Your task to perform on an android device: Open calendar and show me the second week of next month Image 0: 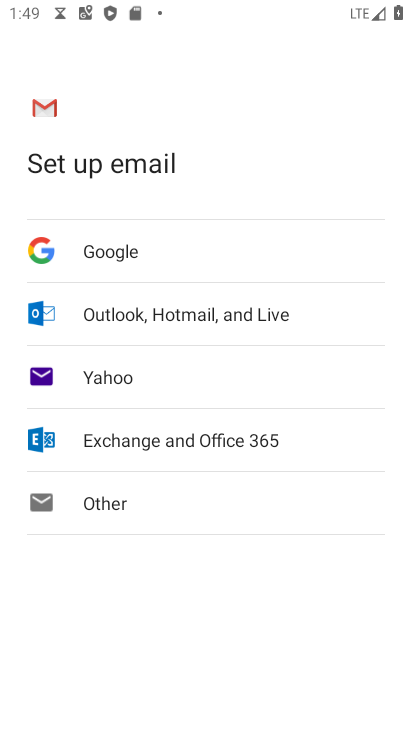
Step 0: press home button
Your task to perform on an android device: Open calendar and show me the second week of next month Image 1: 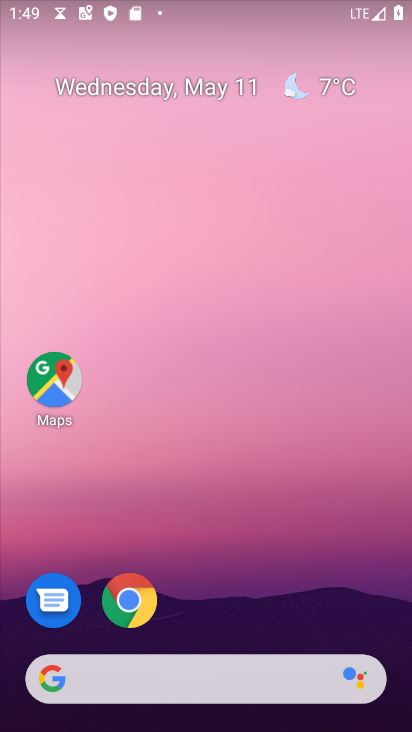
Step 1: drag from (212, 584) to (166, 114)
Your task to perform on an android device: Open calendar and show me the second week of next month Image 2: 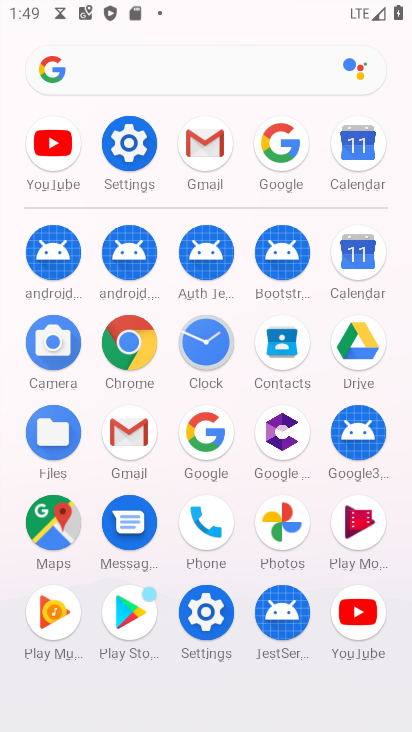
Step 2: click (346, 234)
Your task to perform on an android device: Open calendar and show me the second week of next month Image 3: 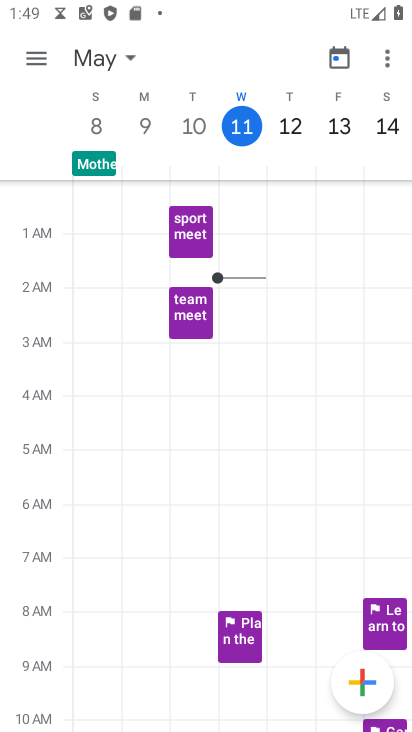
Step 3: click (129, 58)
Your task to perform on an android device: Open calendar and show me the second week of next month Image 4: 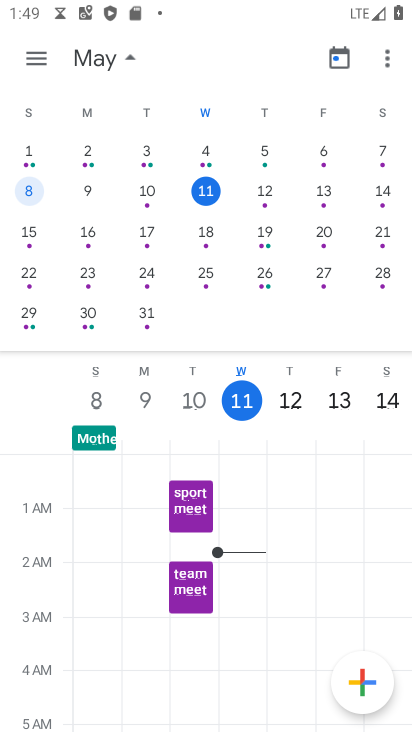
Step 4: drag from (357, 246) to (5, 283)
Your task to perform on an android device: Open calendar and show me the second week of next month Image 5: 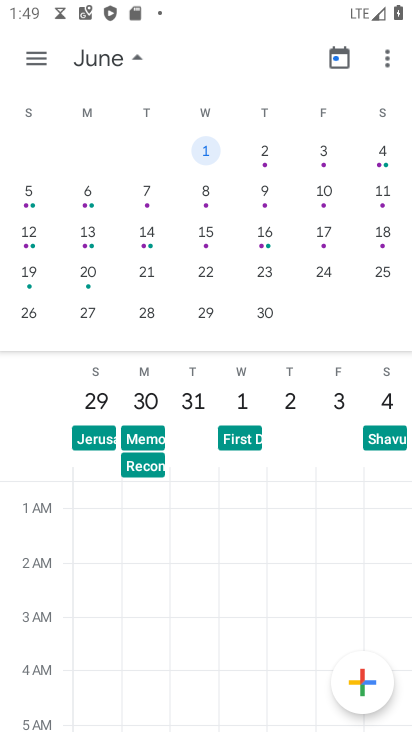
Step 5: click (44, 198)
Your task to perform on an android device: Open calendar and show me the second week of next month Image 6: 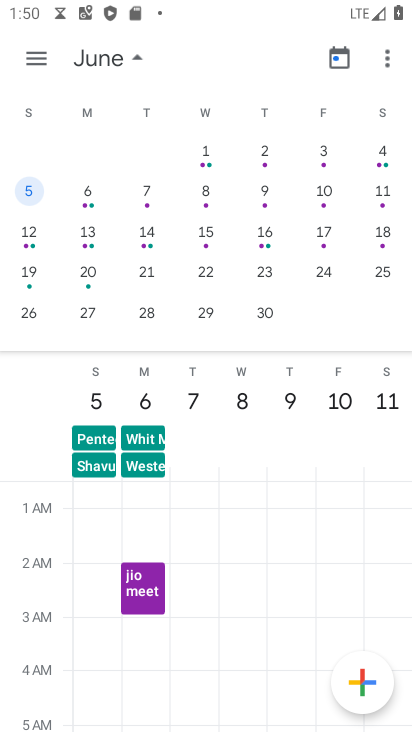
Step 6: task complete